Your task to perform on an android device: Turn on the flashlight Image 0: 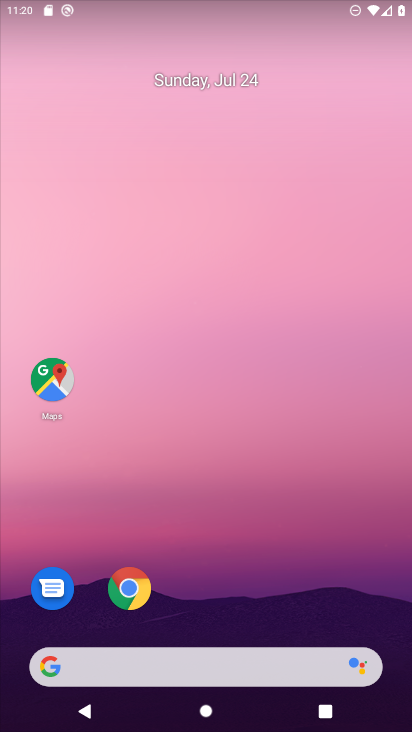
Step 0: drag from (264, 613) to (267, 50)
Your task to perform on an android device: Turn on the flashlight Image 1: 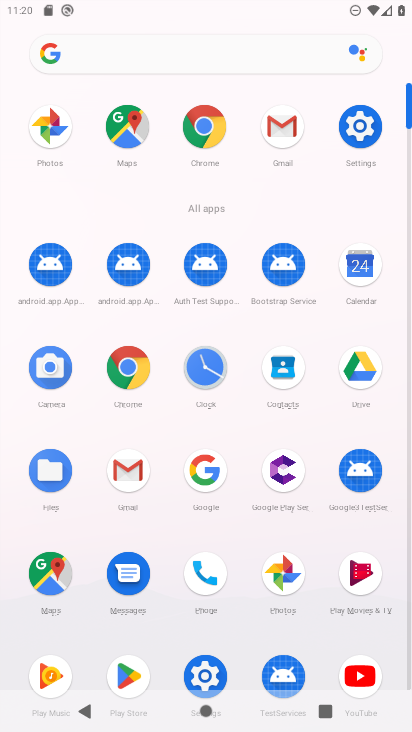
Step 1: click (355, 112)
Your task to perform on an android device: Turn on the flashlight Image 2: 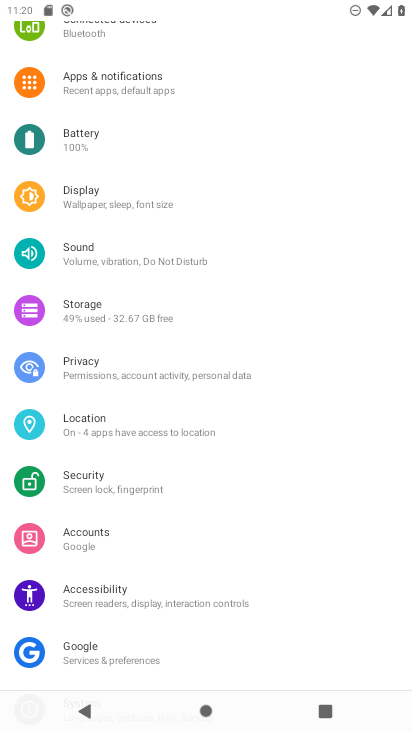
Step 2: drag from (179, 79) to (185, 501)
Your task to perform on an android device: Turn on the flashlight Image 3: 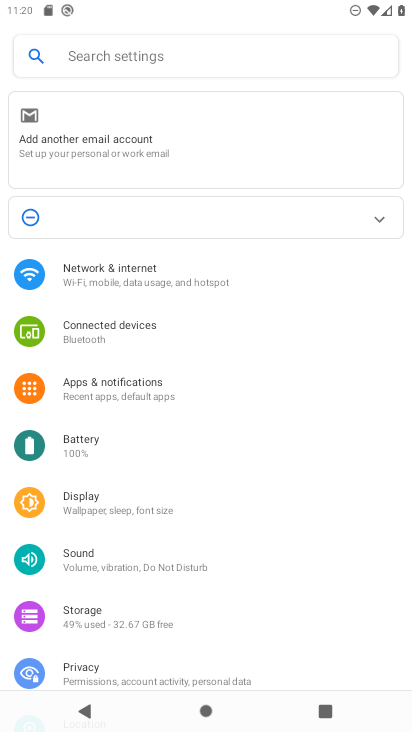
Step 3: drag from (184, 5) to (188, 422)
Your task to perform on an android device: Turn on the flashlight Image 4: 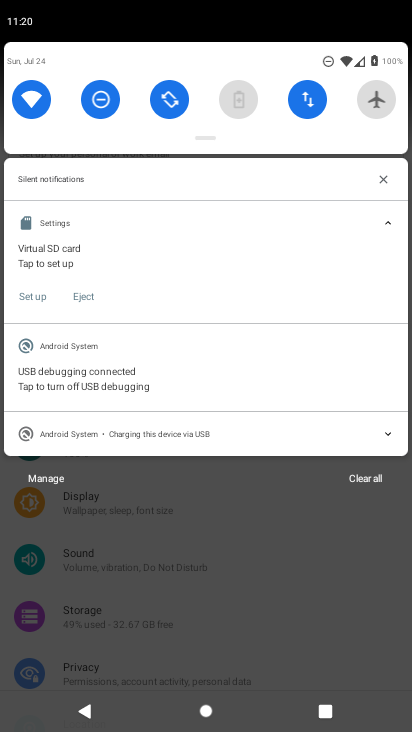
Step 4: drag from (200, 110) to (196, 445)
Your task to perform on an android device: Turn on the flashlight Image 5: 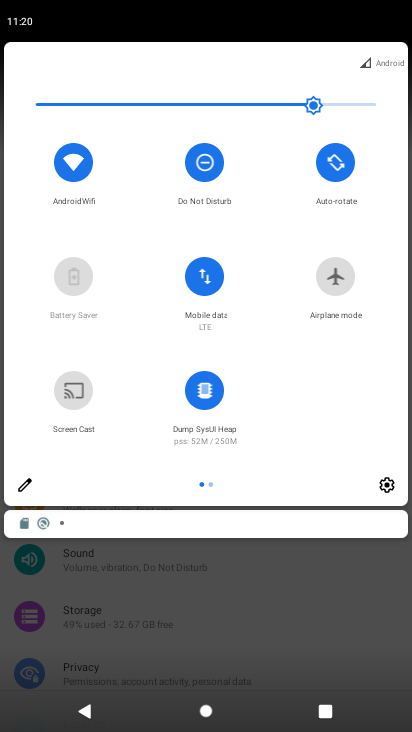
Step 5: click (24, 492)
Your task to perform on an android device: Turn on the flashlight Image 6: 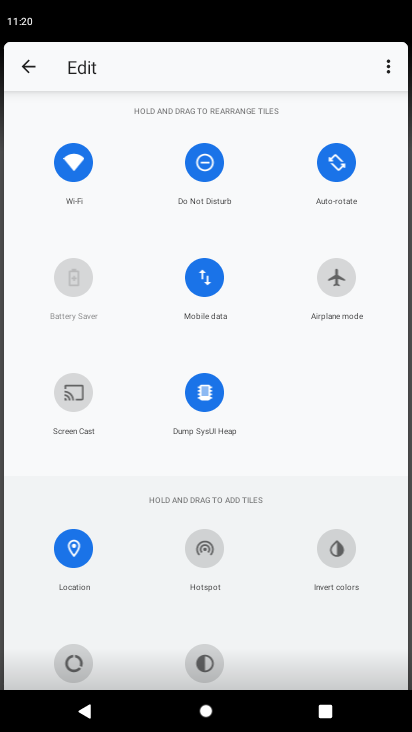
Step 6: task complete